Your task to perform on an android device: What is the news today? Image 0: 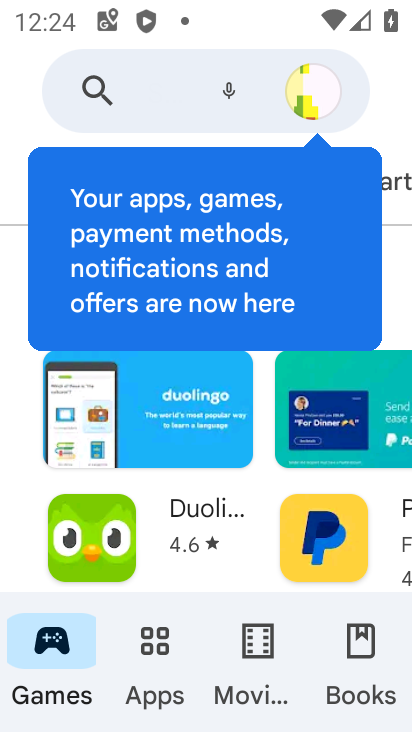
Step 0: press home button
Your task to perform on an android device: What is the news today? Image 1: 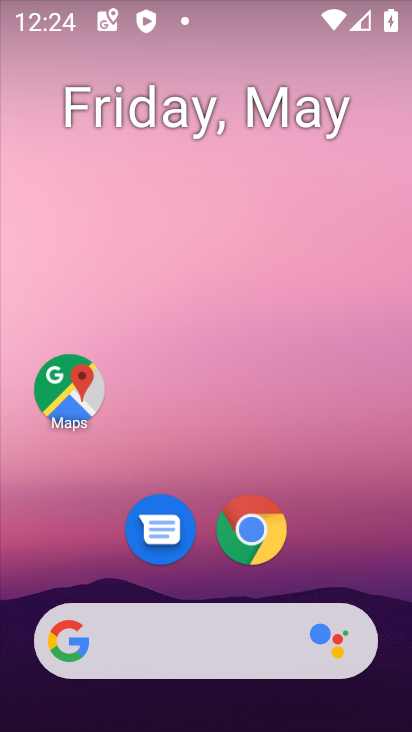
Step 1: click (245, 537)
Your task to perform on an android device: What is the news today? Image 2: 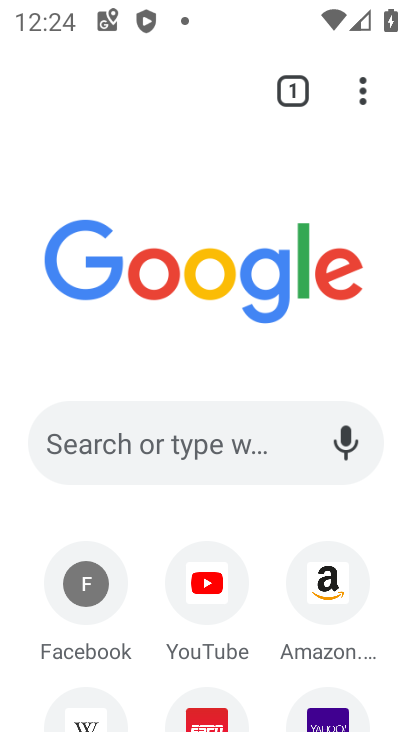
Step 2: click (170, 455)
Your task to perform on an android device: What is the news today? Image 3: 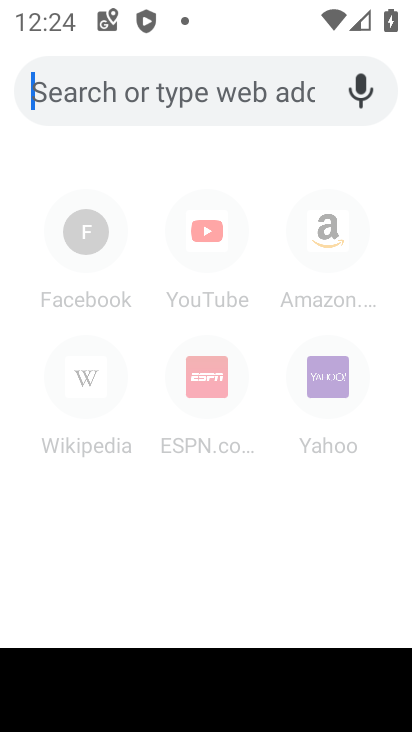
Step 3: type "what is the news today?"
Your task to perform on an android device: What is the news today? Image 4: 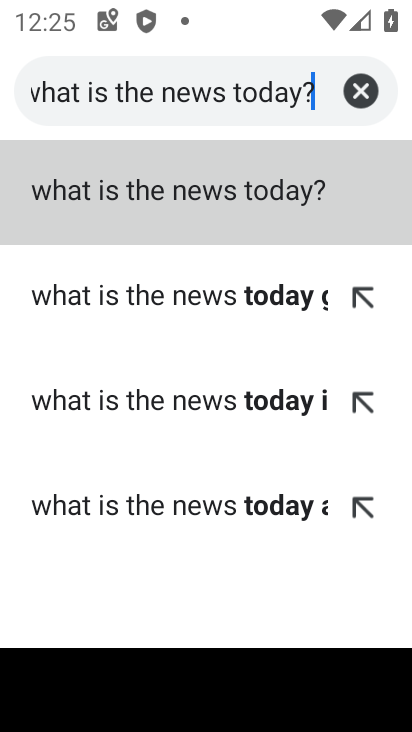
Step 4: click (261, 174)
Your task to perform on an android device: What is the news today? Image 5: 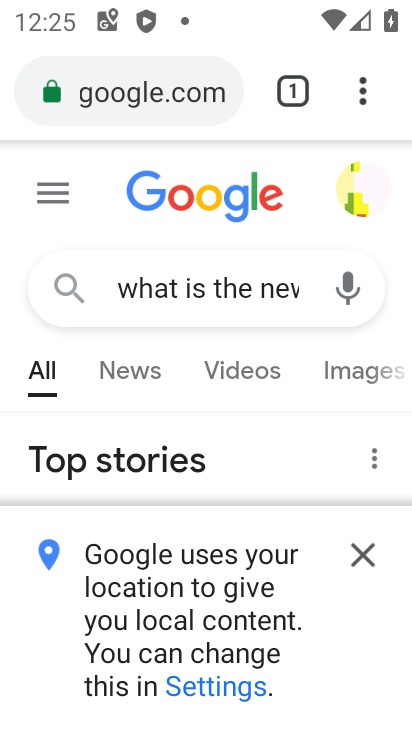
Step 5: click (366, 557)
Your task to perform on an android device: What is the news today? Image 6: 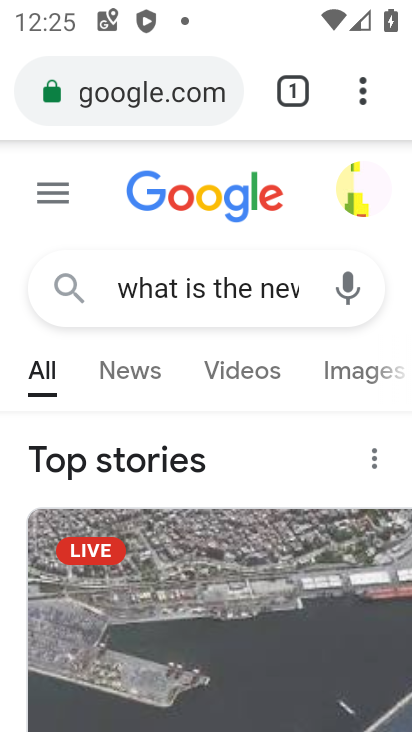
Step 6: task complete